Your task to perform on an android device: refresh tabs in the chrome app Image 0: 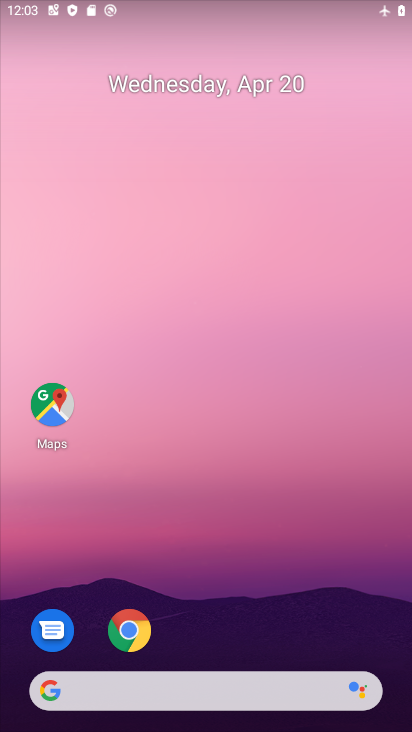
Step 0: drag from (230, 452) to (332, 173)
Your task to perform on an android device: refresh tabs in the chrome app Image 1: 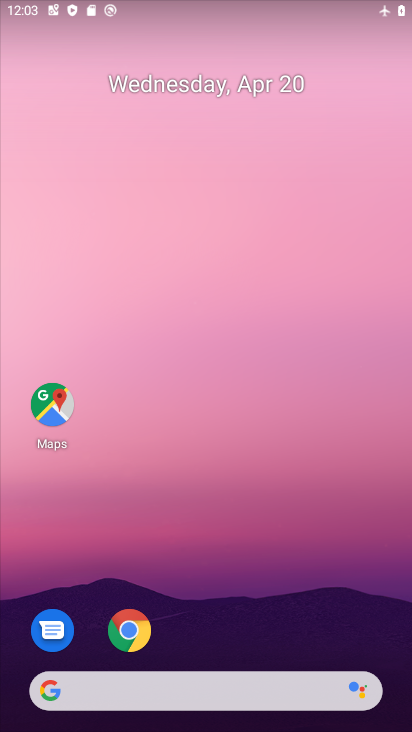
Step 1: drag from (192, 685) to (357, 71)
Your task to perform on an android device: refresh tabs in the chrome app Image 2: 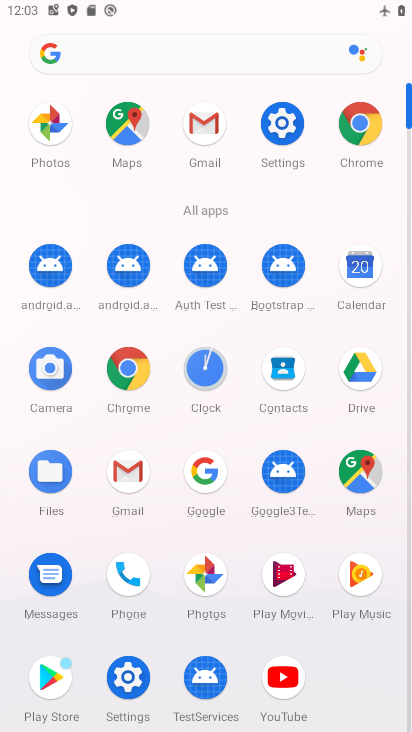
Step 2: click (366, 129)
Your task to perform on an android device: refresh tabs in the chrome app Image 3: 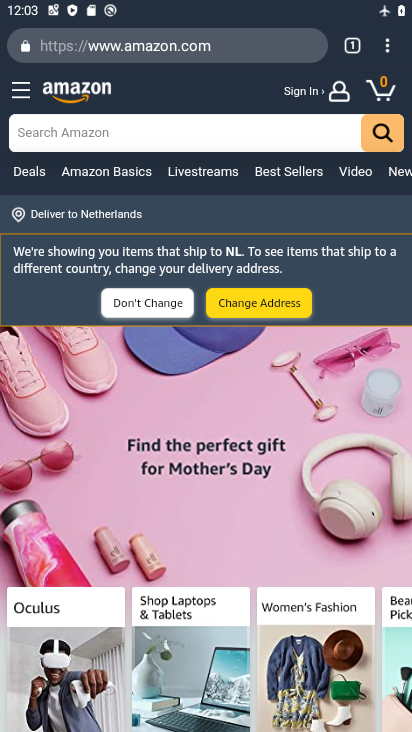
Step 3: click (388, 49)
Your task to perform on an android device: refresh tabs in the chrome app Image 4: 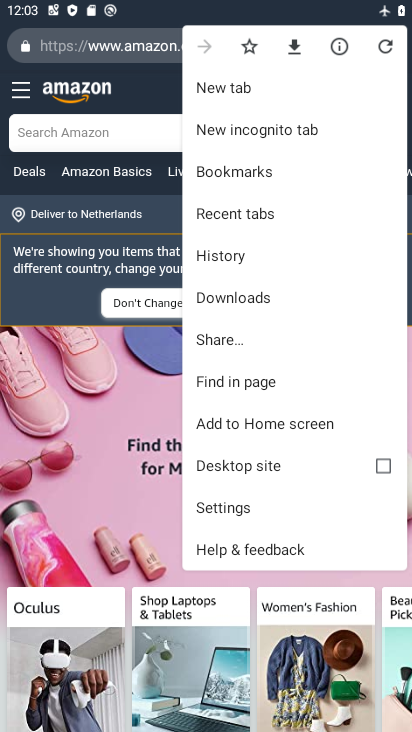
Step 4: click (382, 47)
Your task to perform on an android device: refresh tabs in the chrome app Image 5: 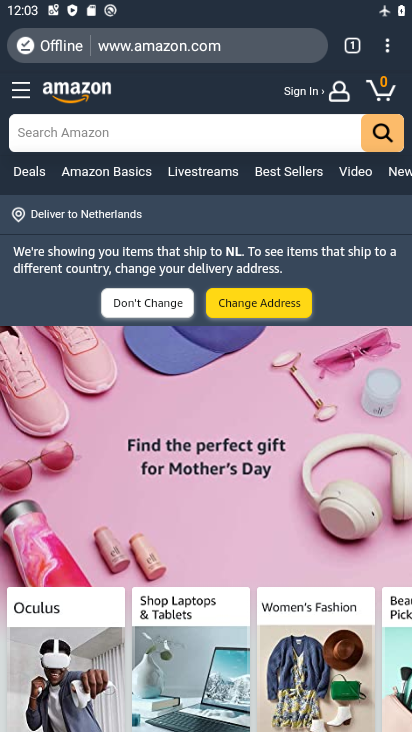
Step 5: task complete